Your task to perform on an android device: delete a single message in the gmail app Image 0: 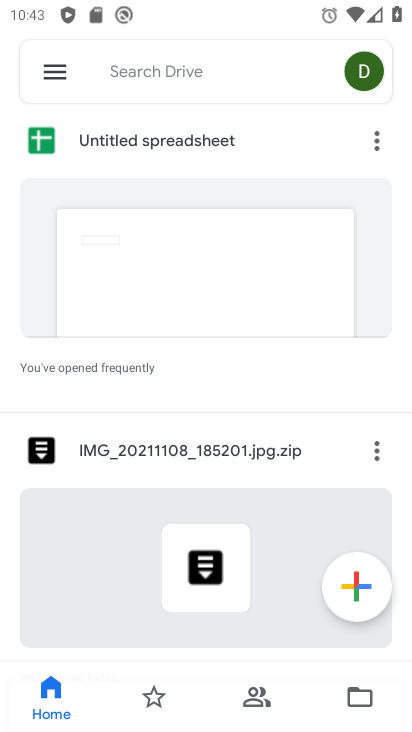
Step 0: press home button
Your task to perform on an android device: delete a single message in the gmail app Image 1: 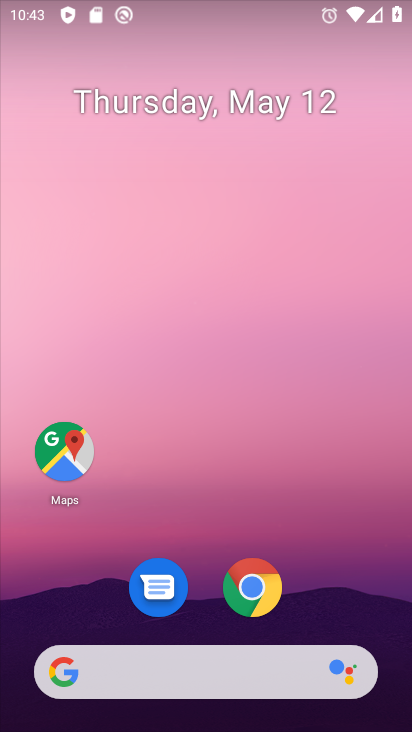
Step 1: drag from (351, 544) to (388, 84)
Your task to perform on an android device: delete a single message in the gmail app Image 2: 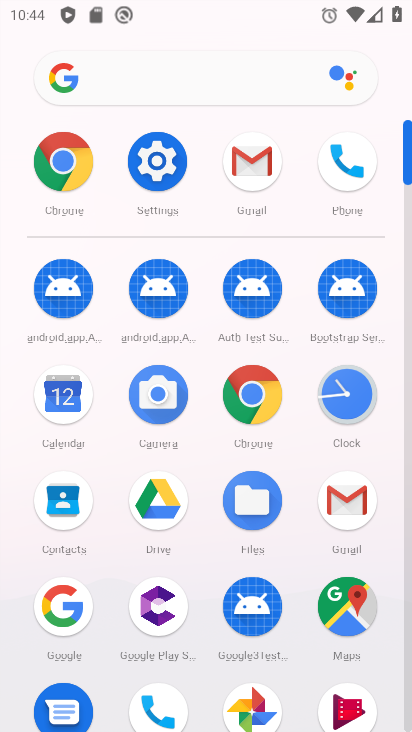
Step 2: click (263, 164)
Your task to perform on an android device: delete a single message in the gmail app Image 3: 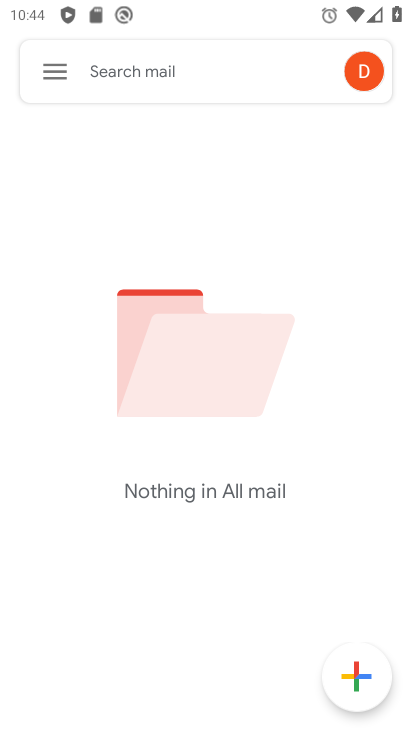
Step 3: click (43, 64)
Your task to perform on an android device: delete a single message in the gmail app Image 4: 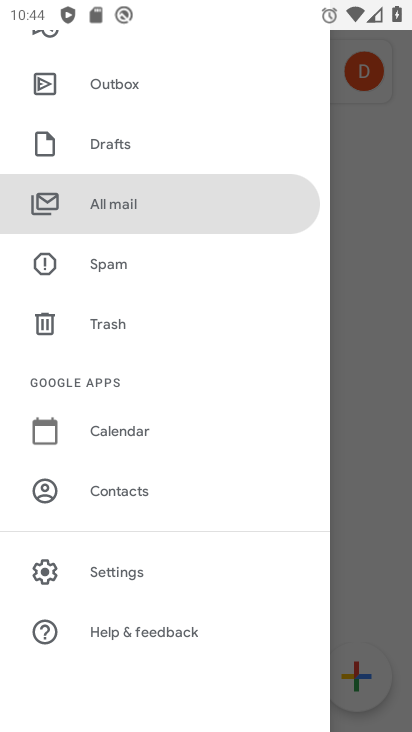
Step 4: click (116, 216)
Your task to perform on an android device: delete a single message in the gmail app Image 5: 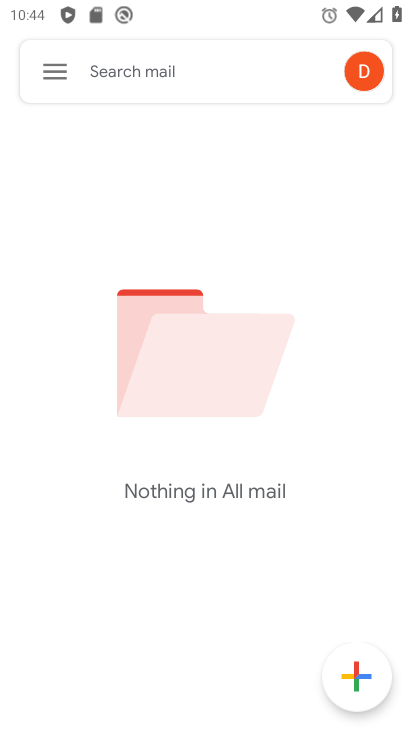
Step 5: task complete